Your task to perform on an android device: add a contact Image 0: 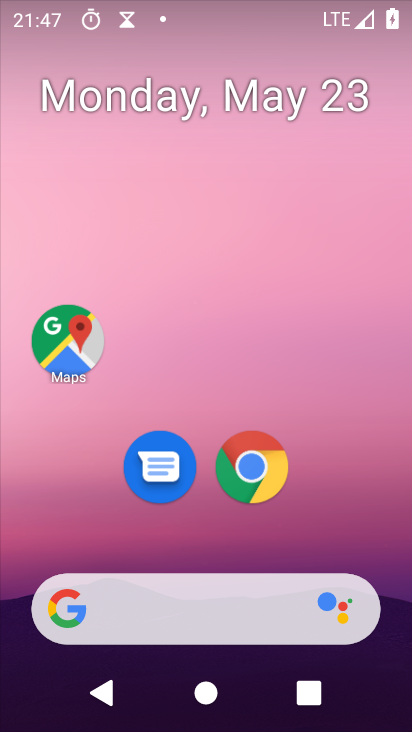
Step 0: drag from (337, 531) to (214, 113)
Your task to perform on an android device: add a contact Image 1: 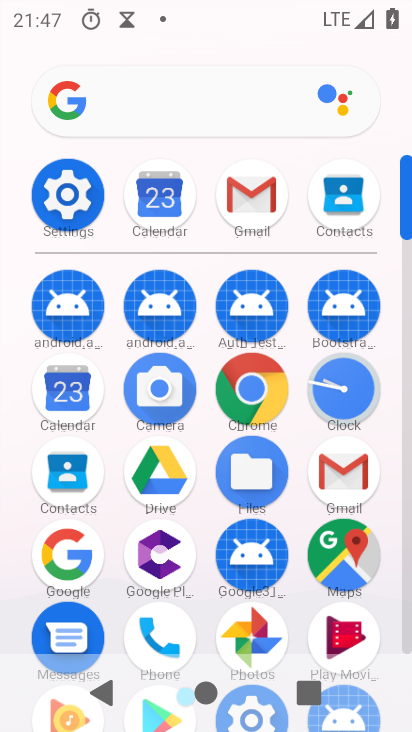
Step 1: click (63, 495)
Your task to perform on an android device: add a contact Image 2: 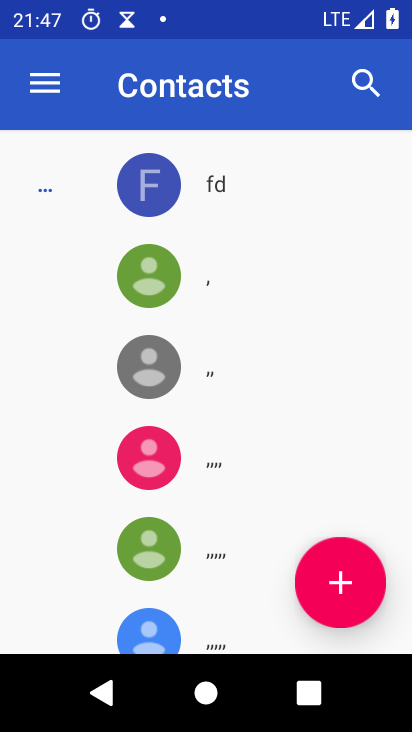
Step 2: click (338, 585)
Your task to perform on an android device: add a contact Image 3: 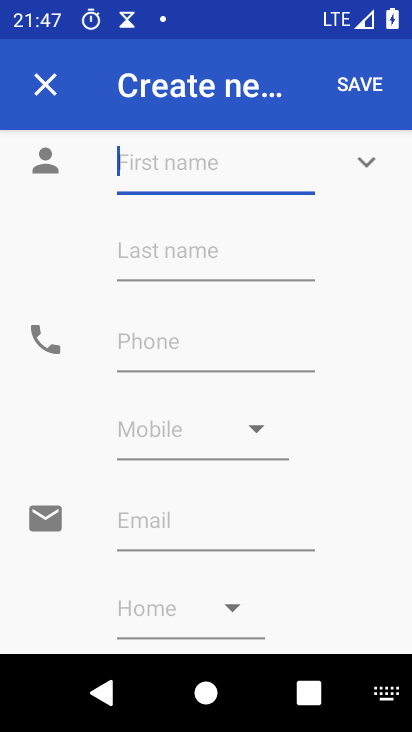
Step 3: type "gdf"
Your task to perform on an android device: add a contact Image 4: 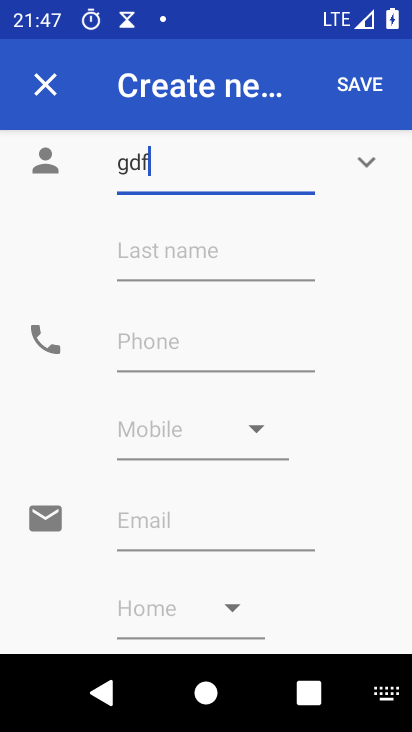
Step 4: type ""
Your task to perform on an android device: add a contact Image 5: 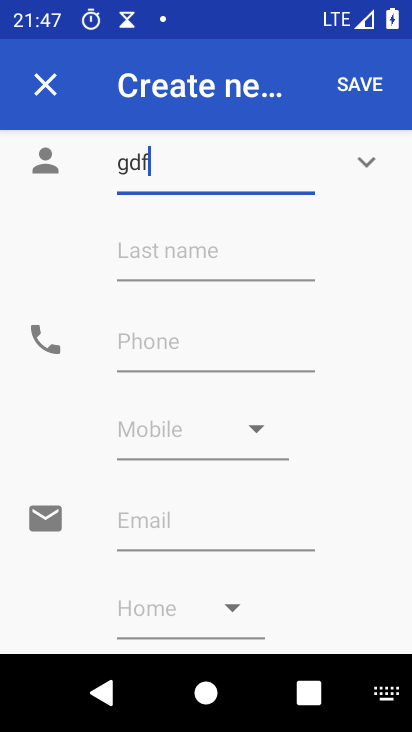
Step 5: click (128, 279)
Your task to perform on an android device: add a contact Image 6: 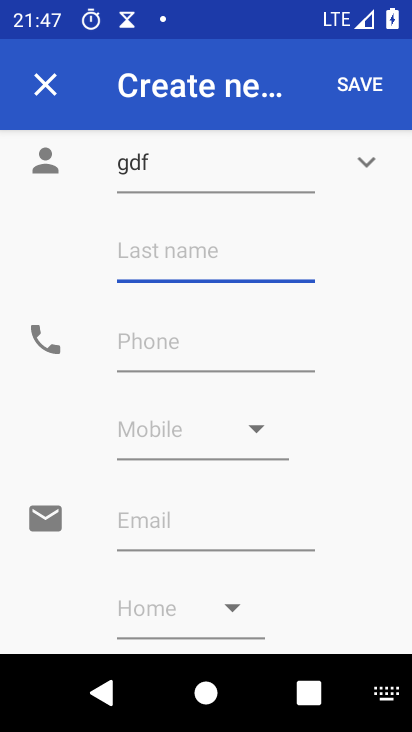
Step 6: type "gsfg"
Your task to perform on an android device: add a contact Image 7: 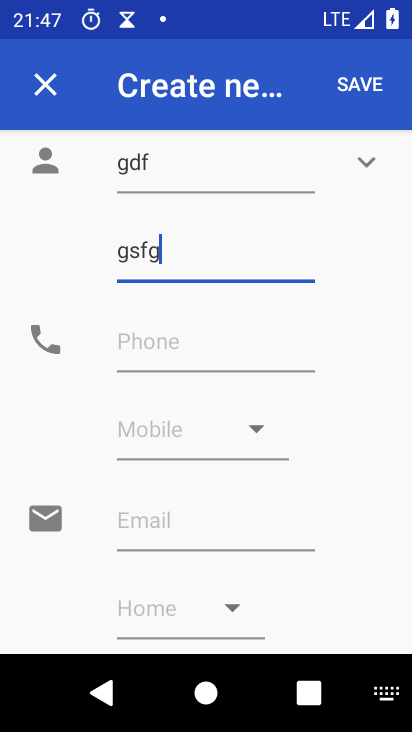
Step 7: type ""
Your task to perform on an android device: add a contact Image 8: 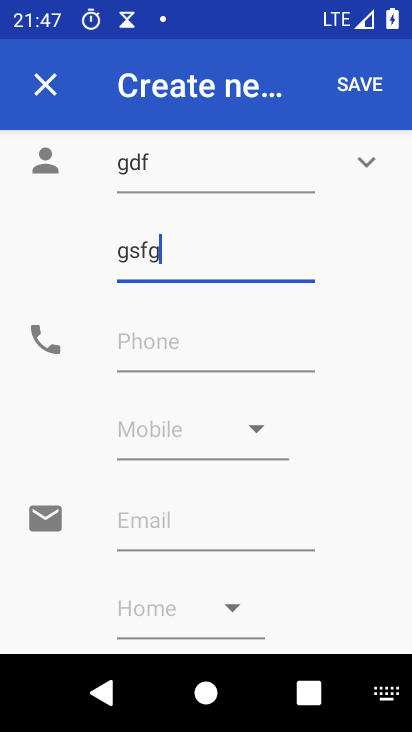
Step 8: click (158, 340)
Your task to perform on an android device: add a contact Image 9: 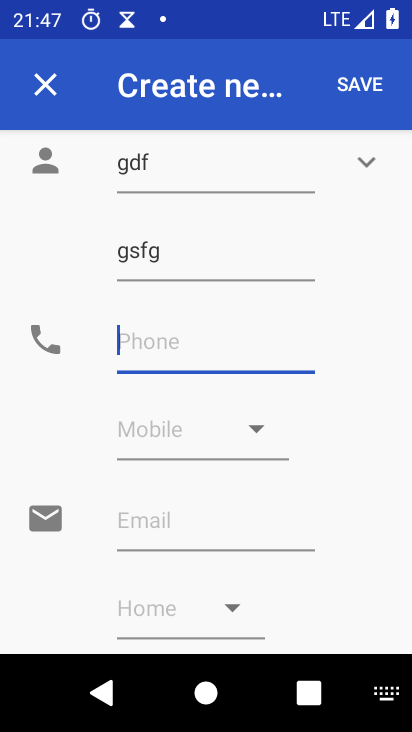
Step 9: type "5634563456"
Your task to perform on an android device: add a contact Image 10: 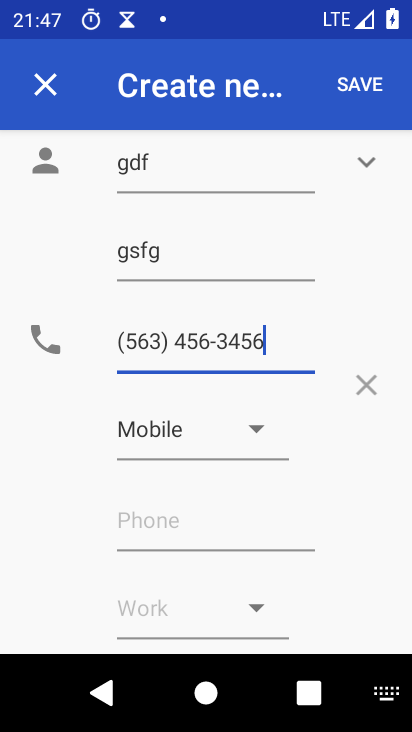
Step 10: type ""
Your task to perform on an android device: add a contact Image 11: 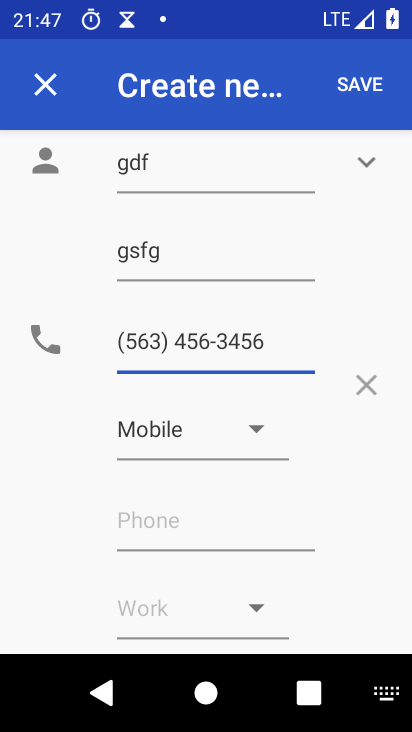
Step 11: click (353, 91)
Your task to perform on an android device: add a contact Image 12: 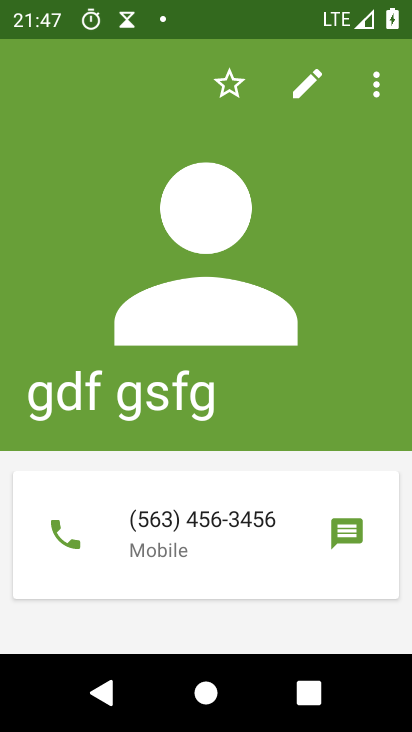
Step 12: task complete